Your task to perform on an android device: turn notification dots off Image 0: 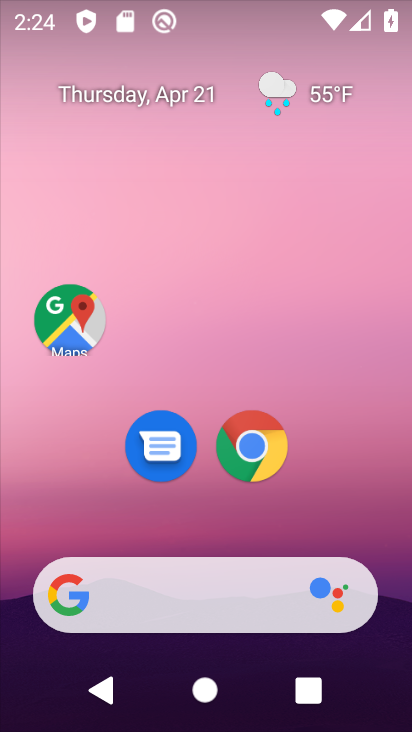
Step 0: drag from (218, 722) to (197, 45)
Your task to perform on an android device: turn notification dots off Image 1: 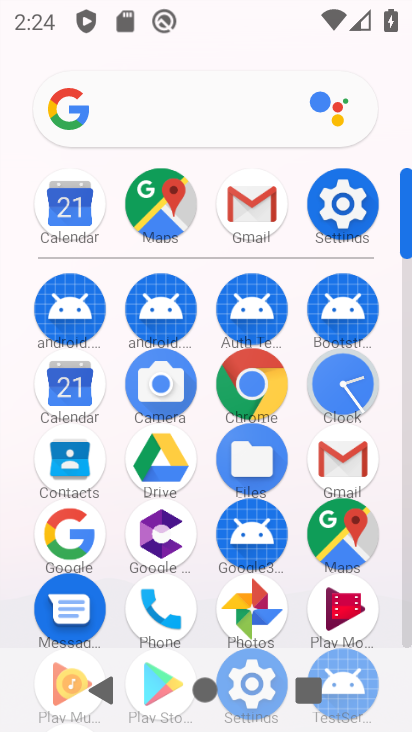
Step 1: click (350, 204)
Your task to perform on an android device: turn notification dots off Image 2: 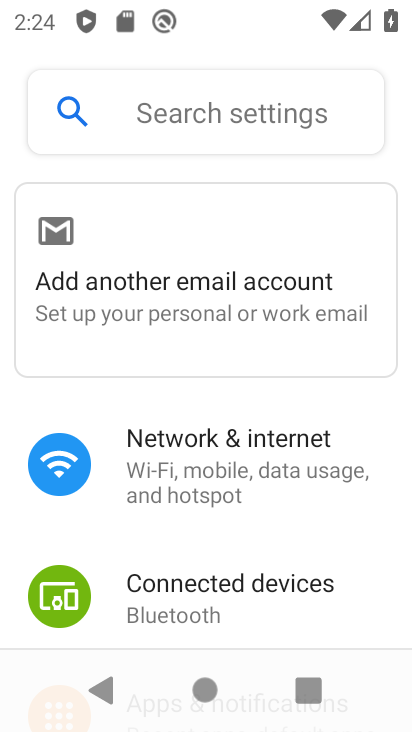
Step 2: drag from (251, 638) to (251, 194)
Your task to perform on an android device: turn notification dots off Image 3: 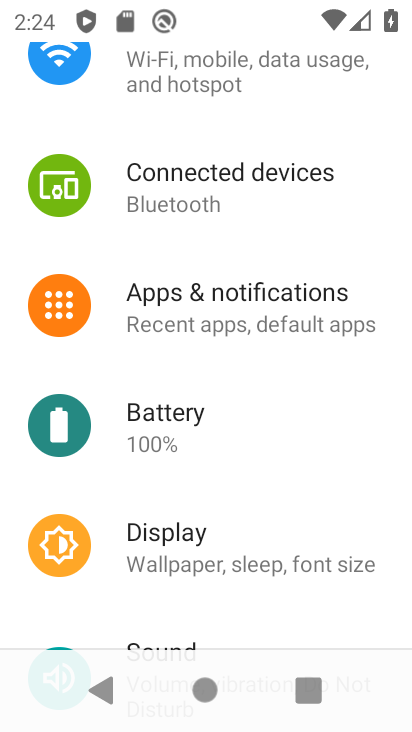
Step 3: click (220, 308)
Your task to perform on an android device: turn notification dots off Image 4: 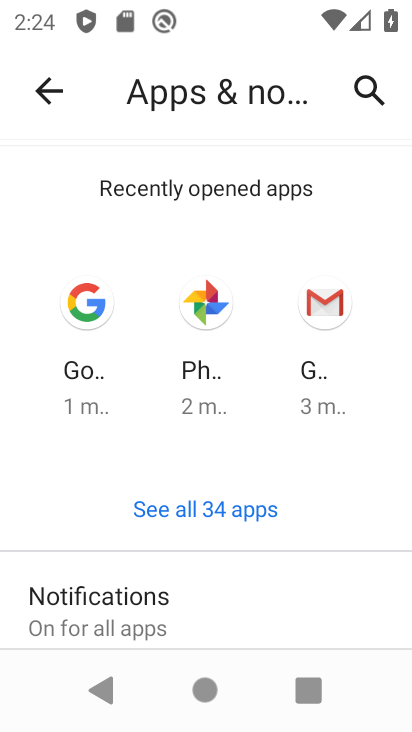
Step 4: drag from (207, 624) to (190, 320)
Your task to perform on an android device: turn notification dots off Image 5: 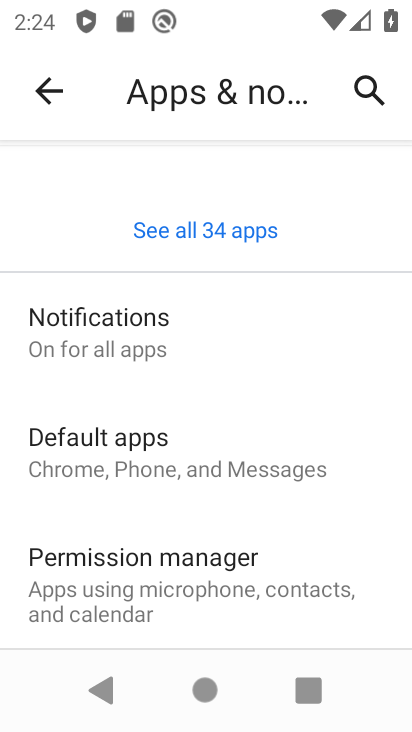
Step 5: click (99, 336)
Your task to perform on an android device: turn notification dots off Image 6: 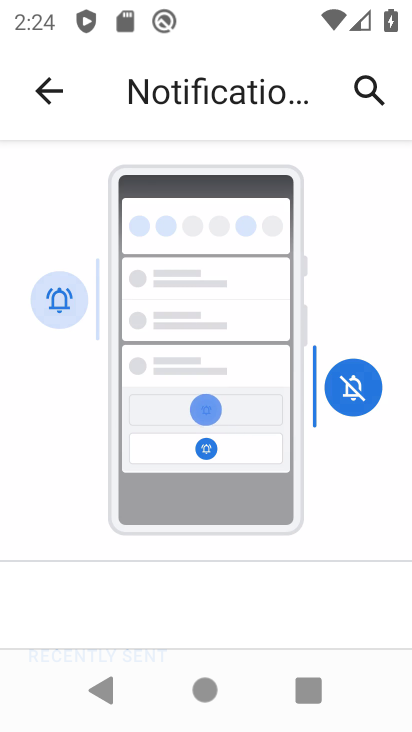
Step 6: drag from (224, 623) to (219, 172)
Your task to perform on an android device: turn notification dots off Image 7: 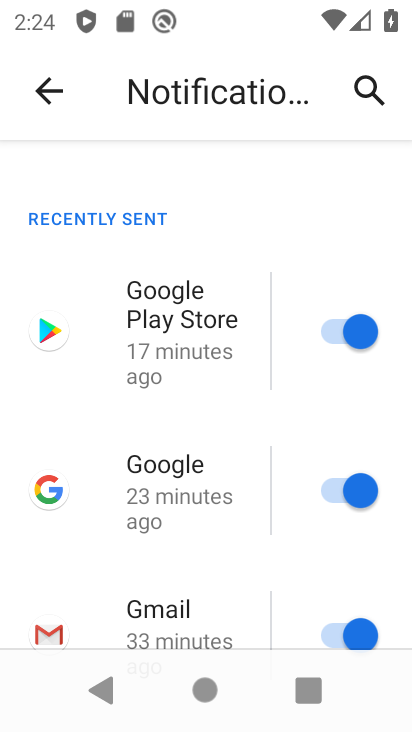
Step 7: drag from (239, 621) to (232, 197)
Your task to perform on an android device: turn notification dots off Image 8: 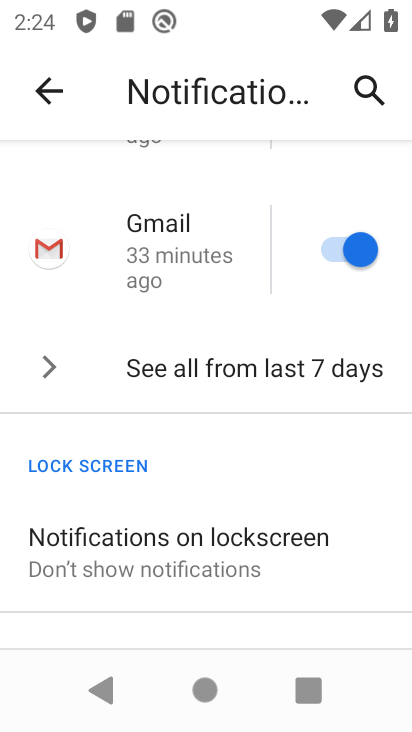
Step 8: drag from (246, 630) to (229, 280)
Your task to perform on an android device: turn notification dots off Image 9: 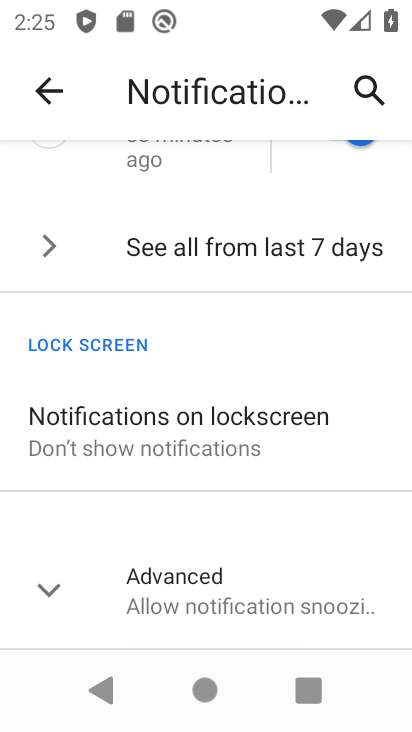
Step 9: click (188, 592)
Your task to perform on an android device: turn notification dots off Image 10: 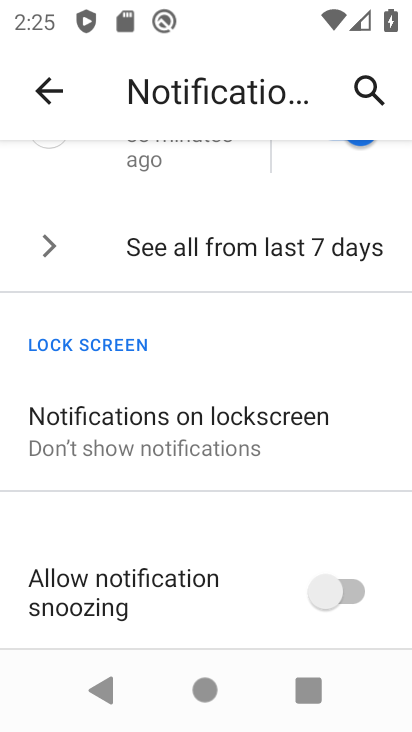
Step 10: task complete